Your task to perform on an android device: Go to network settings Image 0: 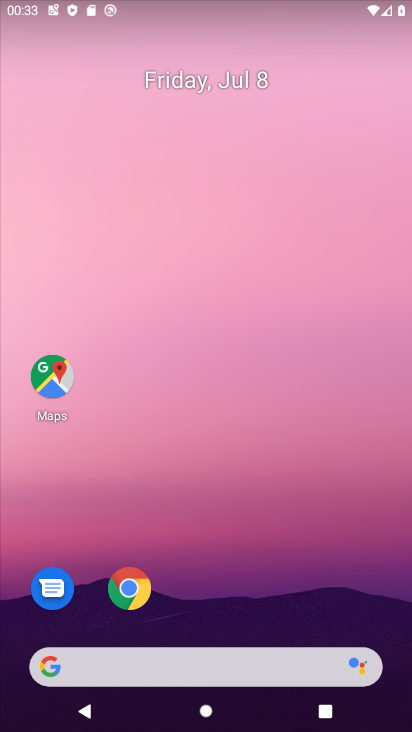
Step 0: drag from (204, 591) to (265, 10)
Your task to perform on an android device: Go to network settings Image 1: 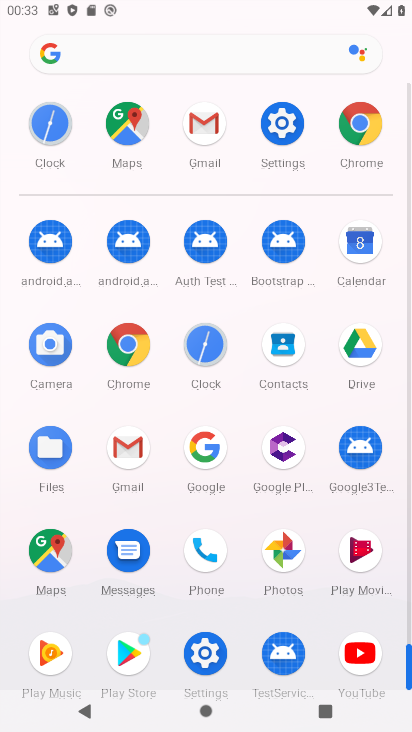
Step 1: click (278, 126)
Your task to perform on an android device: Go to network settings Image 2: 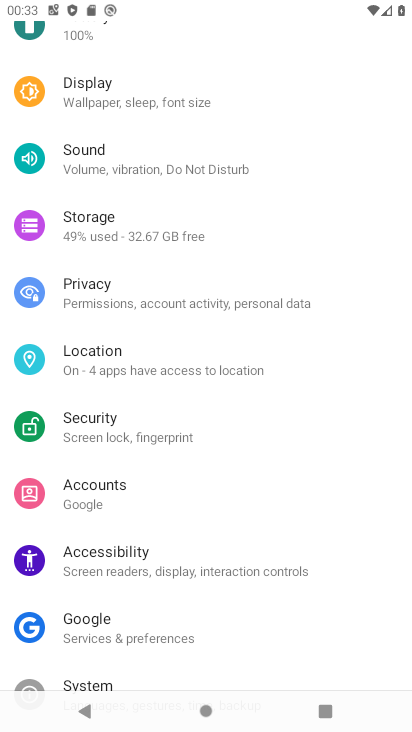
Step 2: drag from (180, 143) to (174, 730)
Your task to perform on an android device: Go to network settings Image 3: 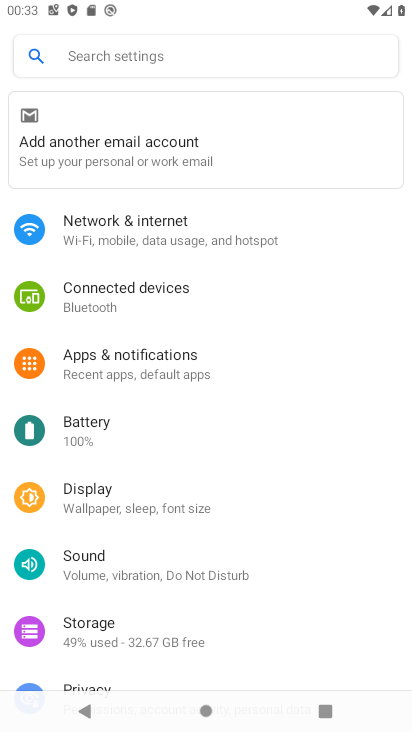
Step 3: click (165, 228)
Your task to perform on an android device: Go to network settings Image 4: 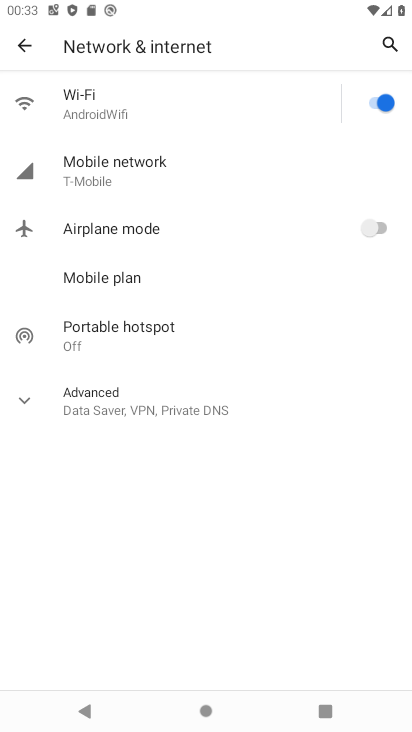
Step 4: click (162, 178)
Your task to perform on an android device: Go to network settings Image 5: 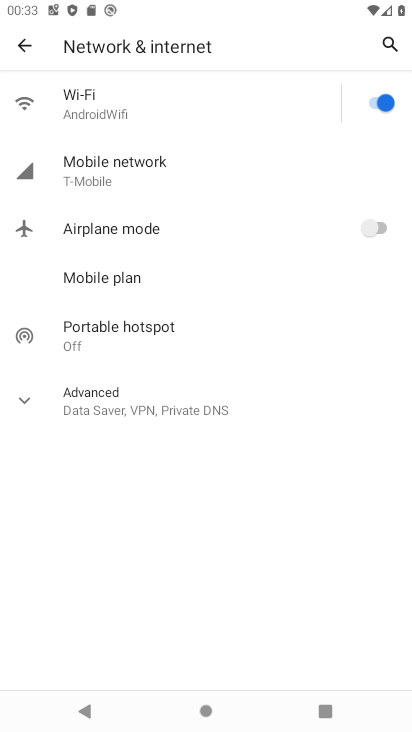
Step 5: click (162, 178)
Your task to perform on an android device: Go to network settings Image 6: 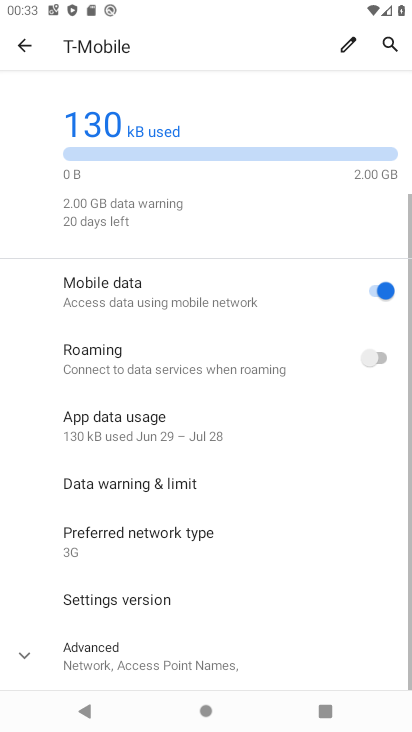
Step 6: task complete